Your task to perform on an android device: Open the stopwatch Image 0: 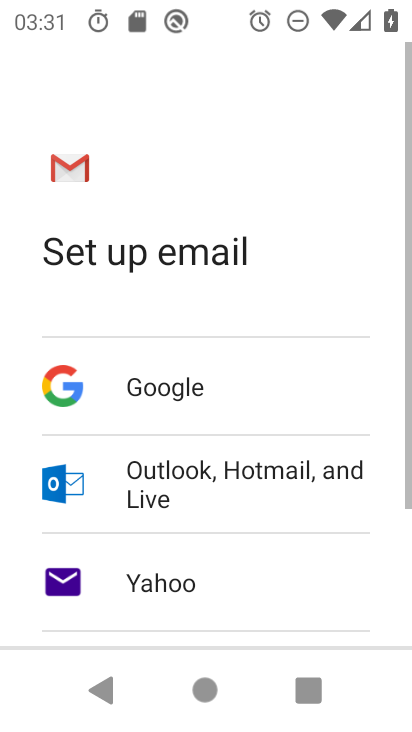
Step 0: press home button
Your task to perform on an android device: Open the stopwatch Image 1: 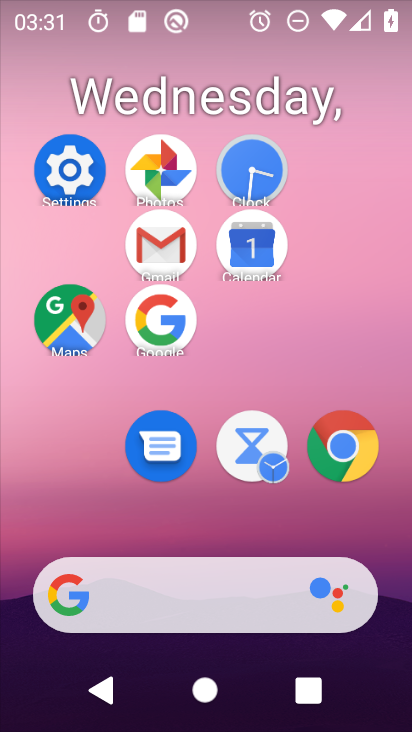
Step 1: click (263, 164)
Your task to perform on an android device: Open the stopwatch Image 2: 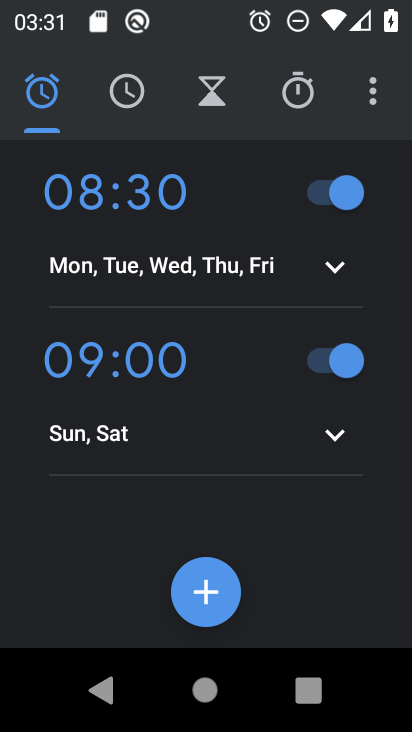
Step 2: click (299, 106)
Your task to perform on an android device: Open the stopwatch Image 3: 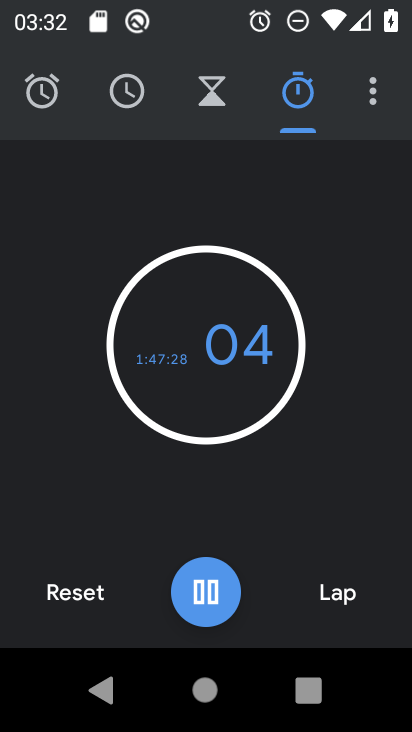
Step 3: task complete